Your task to perform on an android device: Open Yahoo.com Image 0: 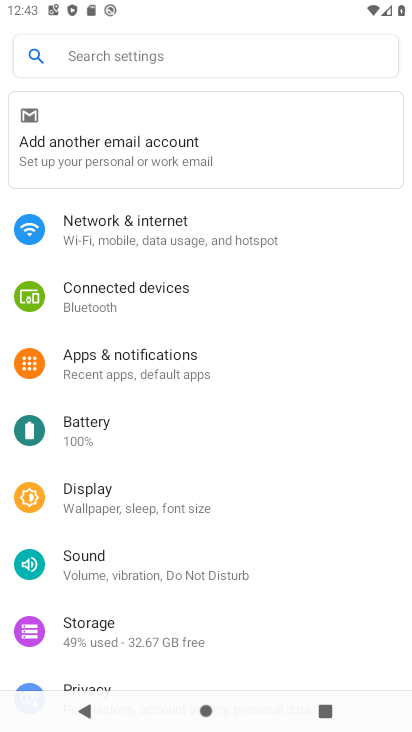
Step 0: press home button
Your task to perform on an android device: Open Yahoo.com Image 1: 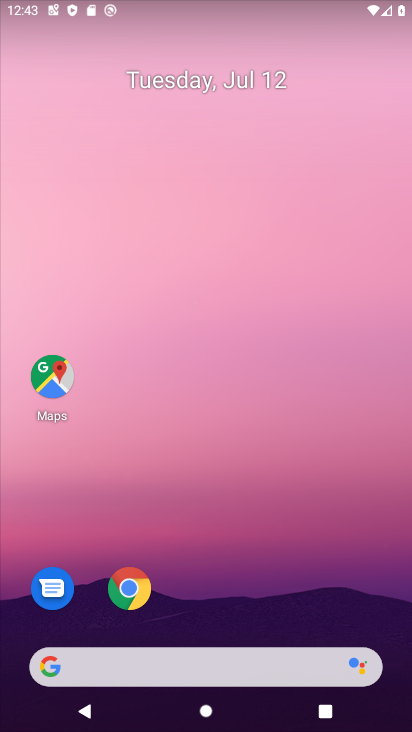
Step 1: click (130, 596)
Your task to perform on an android device: Open Yahoo.com Image 2: 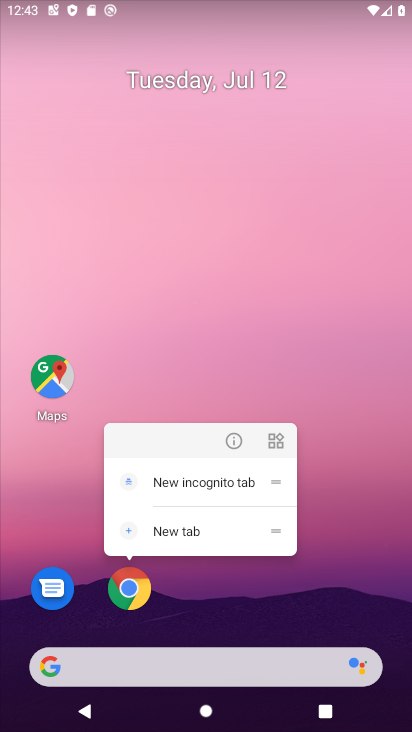
Step 2: click (129, 596)
Your task to perform on an android device: Open Yahoo.com Image 3: 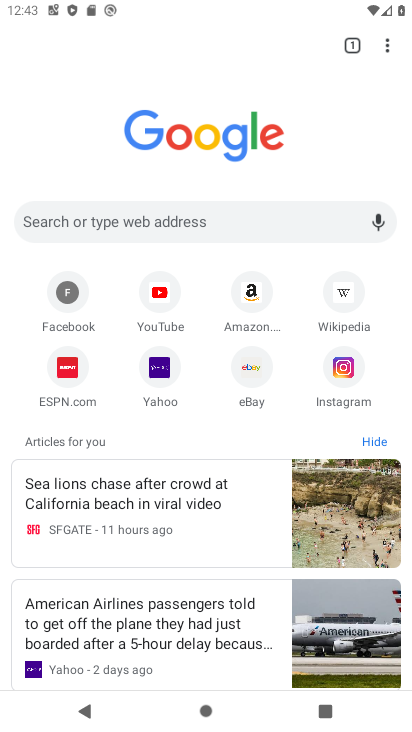
Step 3: click (163, 368)
Your task to perform on an android device: Open Yahoo.com Image 4: 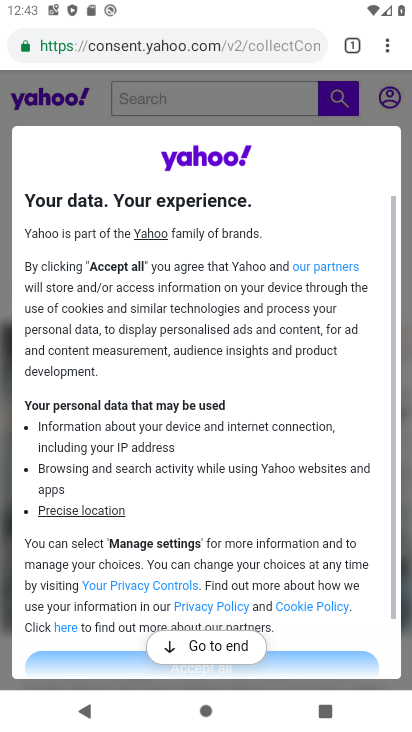
Step 4: task complete